Your task to perform on an android device: set the stopwatch Image 0: 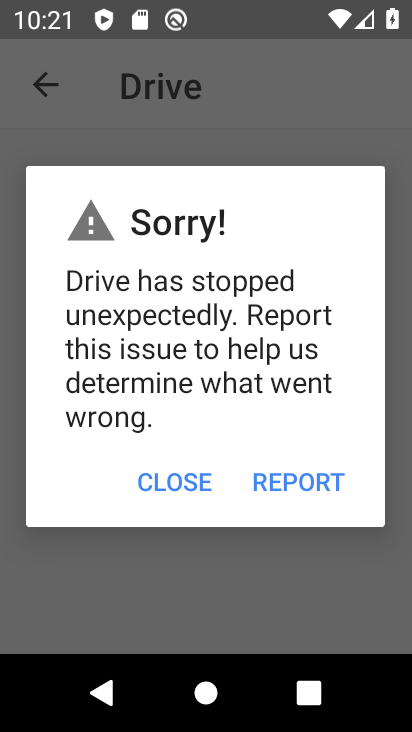
Step 0: press home button
Your task to perform on an android device: set the stopwatch Image 1: 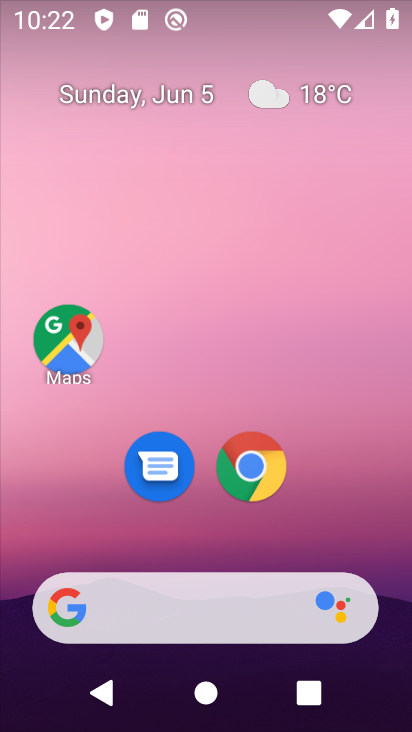
Step 1: drag from (336, 511) to (213, 138)
Your task to perform on an android device: set the stopwatch Image 2: 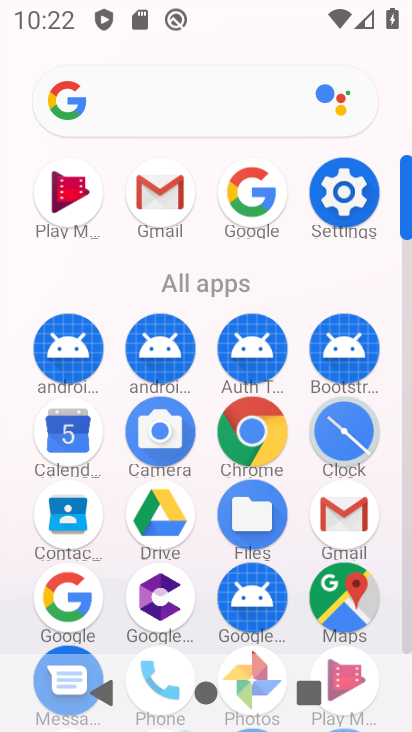
Step 2: click (344, 429)
Your task to perform on an android device: set the stopwatch Image 3: 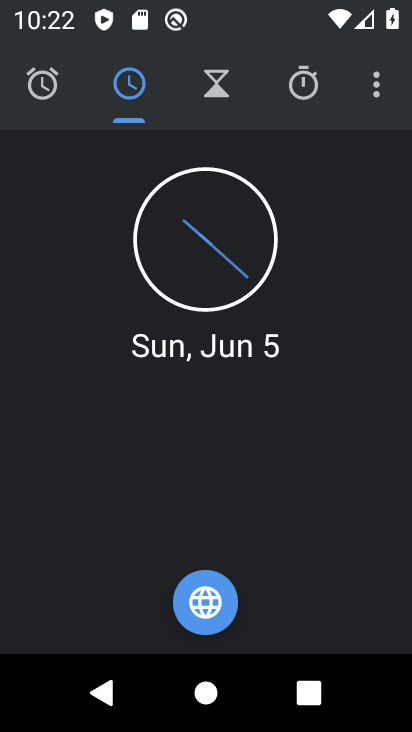
Step 3: click (309, 91)
Your task to perform on an android device: set the stopwatch Image 4: 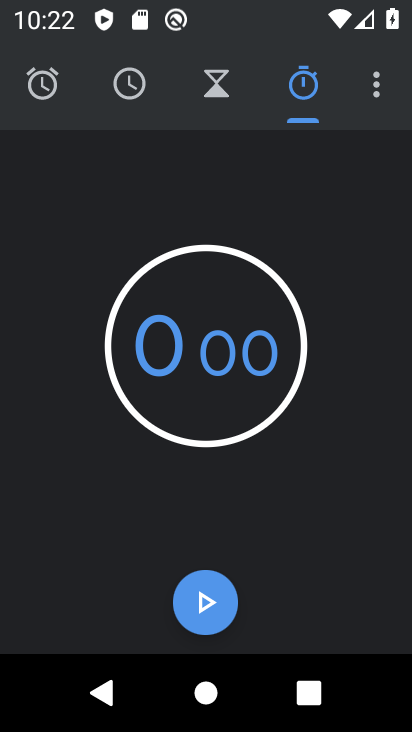
Step 4: click (206, 605)
Your task to perform on an android device: set the stopwatch Image 5: 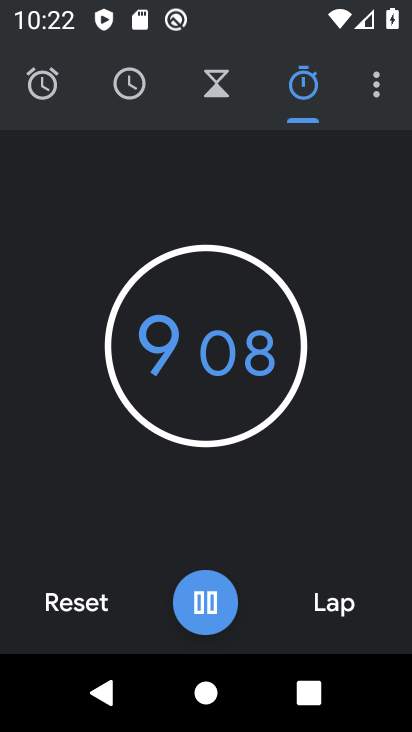
Step 5: click (206, 605)
Your task to perform on an android device: set the stopwatch Image 6: 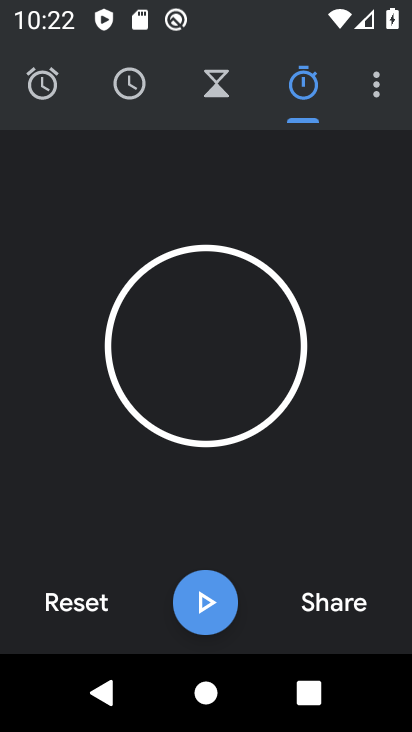
Step 6: task complete